Your task to perform on an android device: turn off improve location accuracy Image 0: 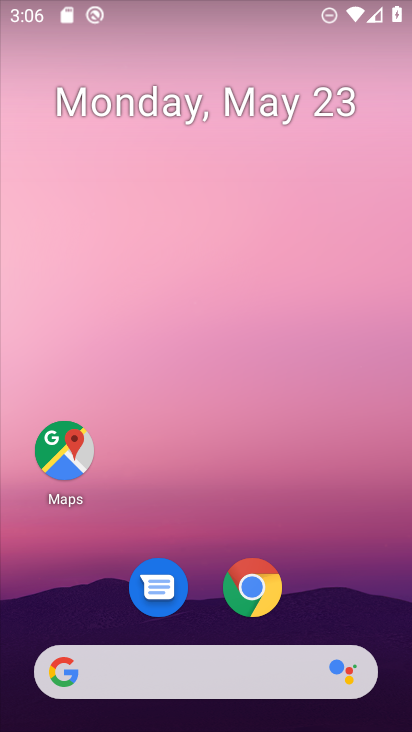
Step 0: drag from (193, 628) to (230, 8)
Your task to perform on an android device: turn off improve location accuracy Image 1: 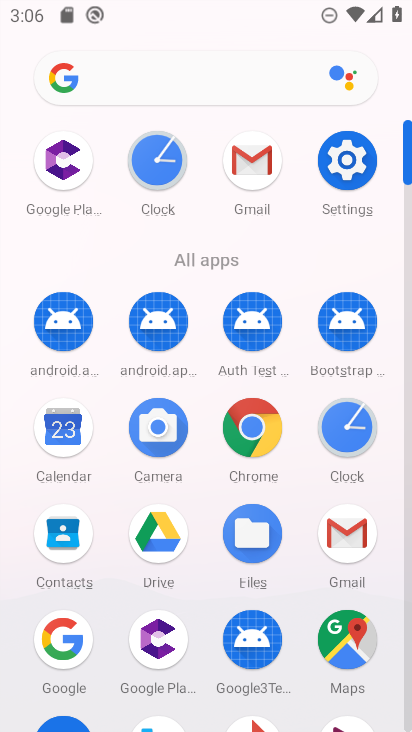
Step 1: drag from (201, 627) to (252, 139)
Your task to perform on an android device: turn off improve location accuracy Image 2: 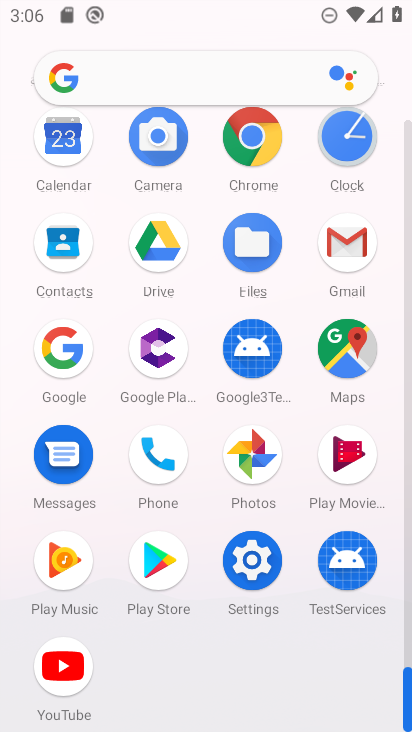
Step 2: click (262, 578)
Your task to perform on an android device: turn off improve location accuracy Image 3: 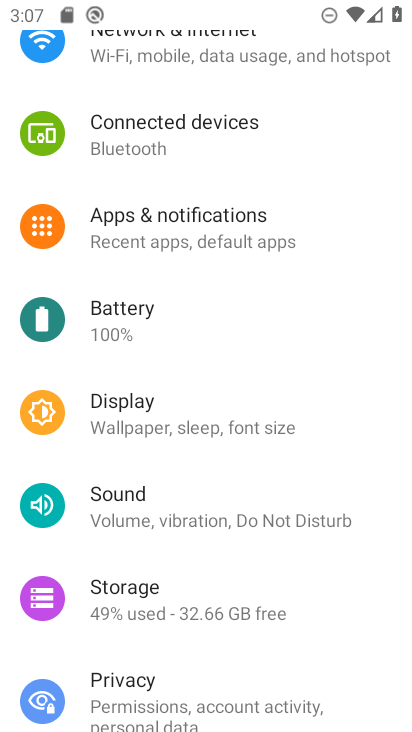
Step 3: drag from (211, 485) to (217, 233)
Your task to perform on an android device: turn off improve location accuracy Image 4: 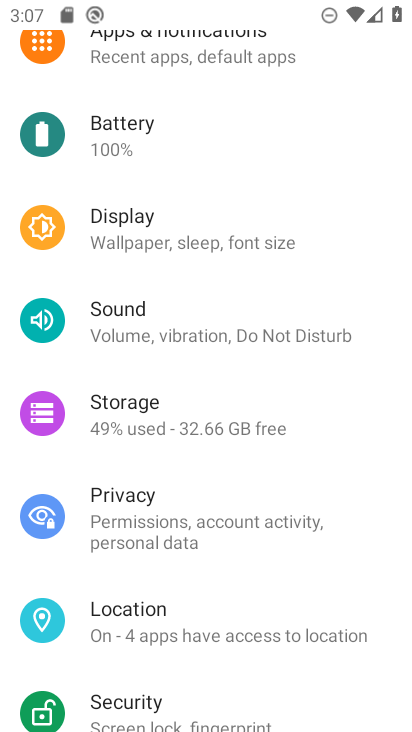
Step 4: click (125, 607)
Your task to perform on an android device: turn off improve location accuracy Image 5: 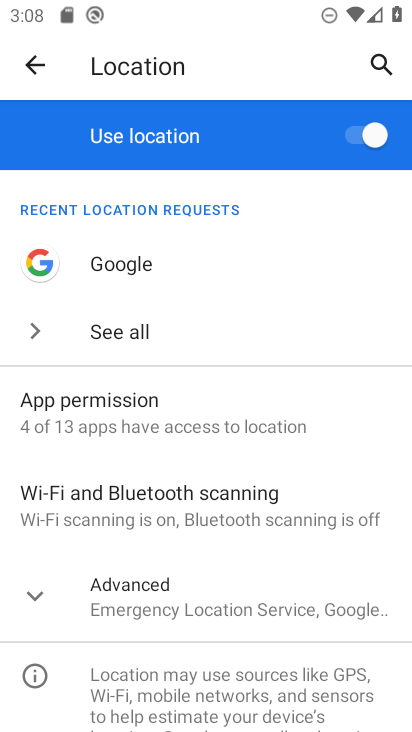
Step 5: click (182, 614)
Your task to perform on an android device: turn off improve location accuracy Image 6: 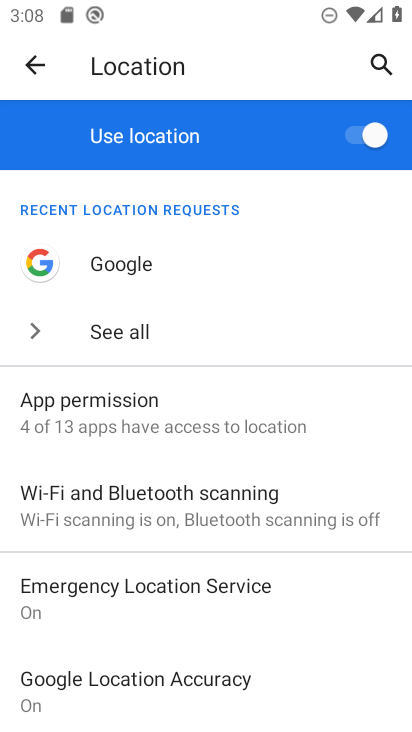
Step 6: drag from (167, 403) to (177, 271)
Your task to perform on an android device: turn off improve location accuracy Image 7: 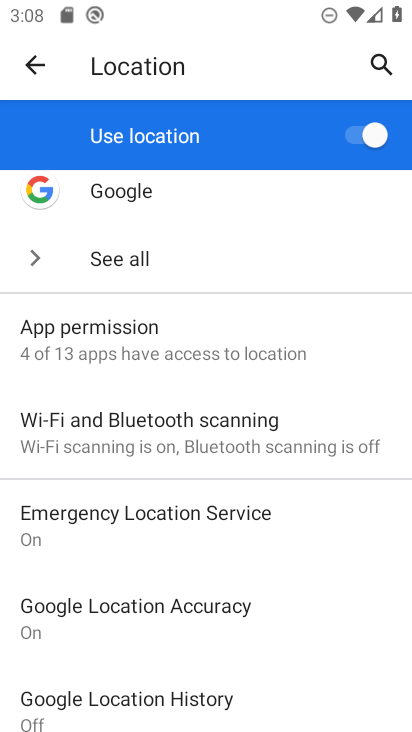
Step 7: click (168, 612)
Your task to perform on an android device: turn off improve location accuracy Image 8: 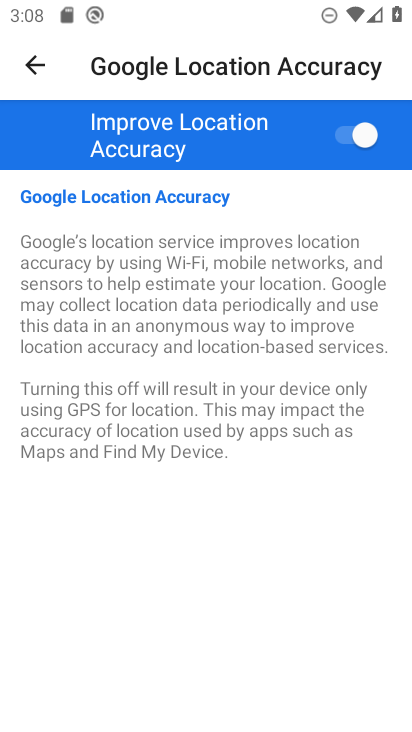
Step 8: click (326, 133)
Your task to perform on an android device: turn off improve location accuracy Image 9: 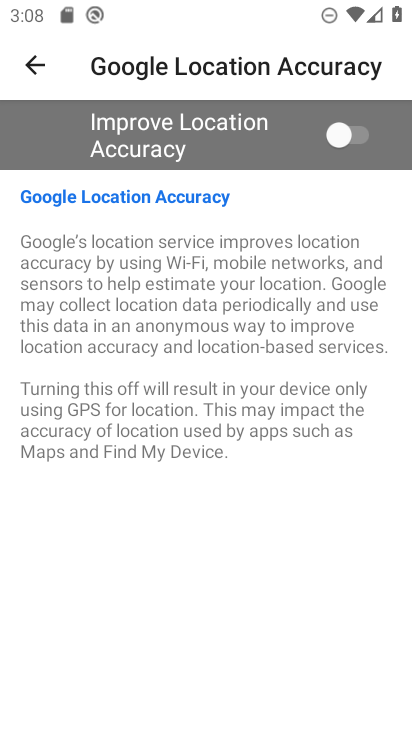
Step 9: task complete